Your task to perform on an android device: When is my next appointment? Image 0: 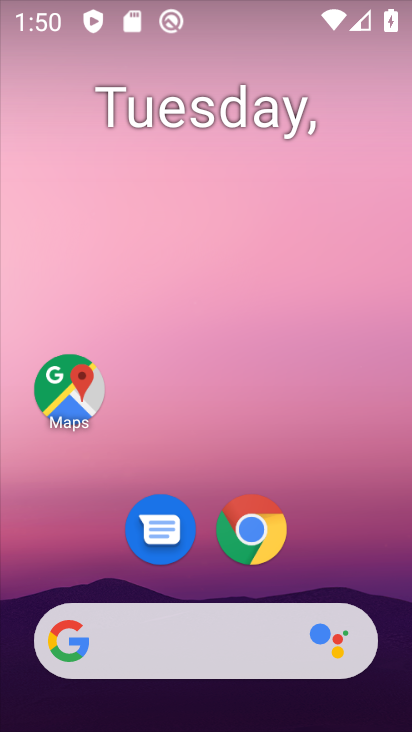
Step 0: drag from (389, 615) to (258, 79)
Your task to perform on an android device: When is my next appointment? Image 1: 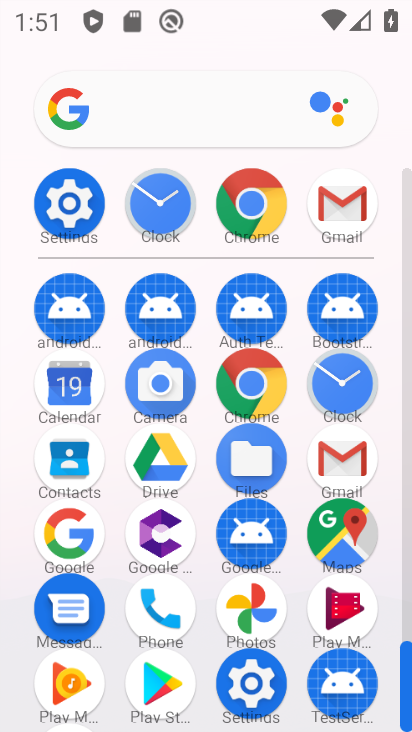
Step 1: click (100, 386)
Your task to perform on an android device: When is my next appointment? Image 2: 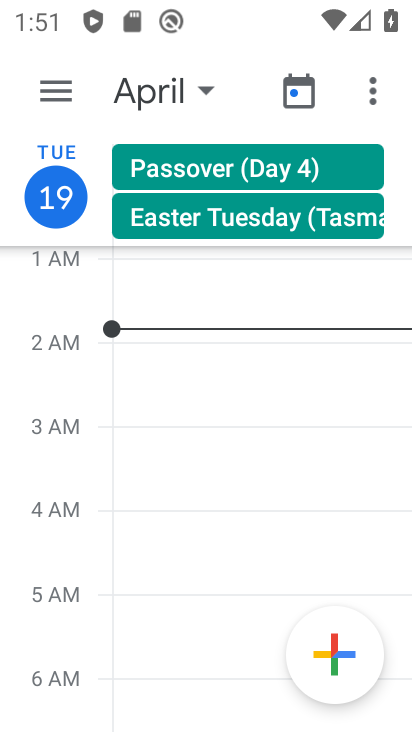
Step 2: task complete